Your task to perform on an android device: uninstall "Speedtest by Ookla" Image 0: 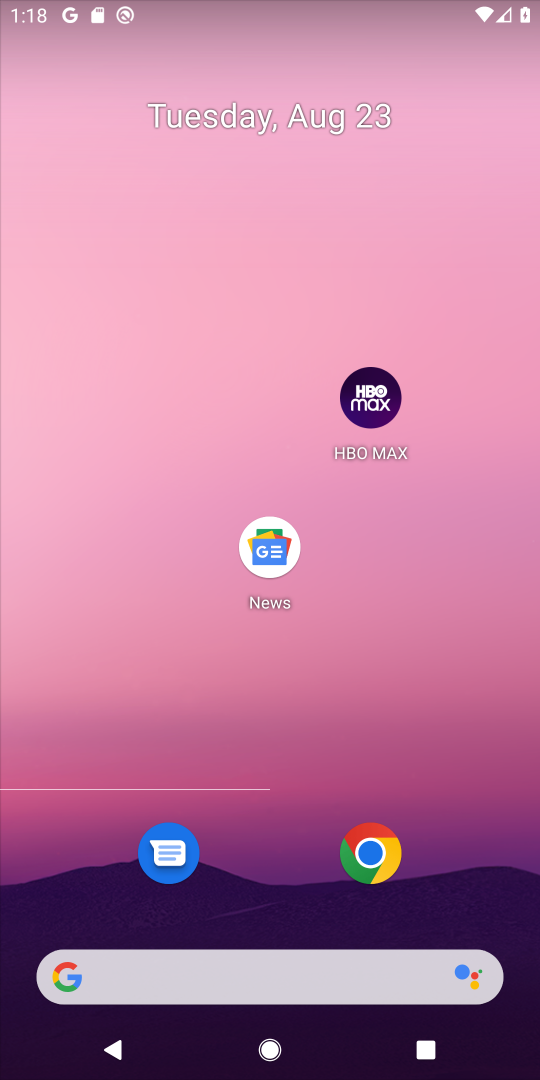
Step 0: drag from (523, 931) to (426, 140)
Your task to perform on an android device: uninstall "Speedtest by Ookla" Image 1: 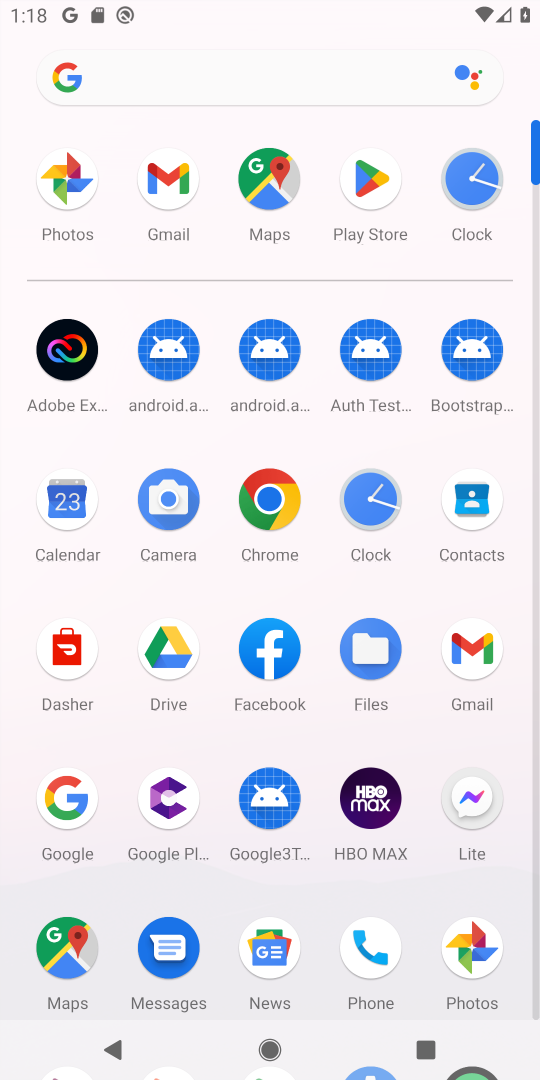
Step 1: drag from (422, 882) to (415, 392)
Your task to perform on an android device: uninstall "Speedtest by Ookla" Image 2: 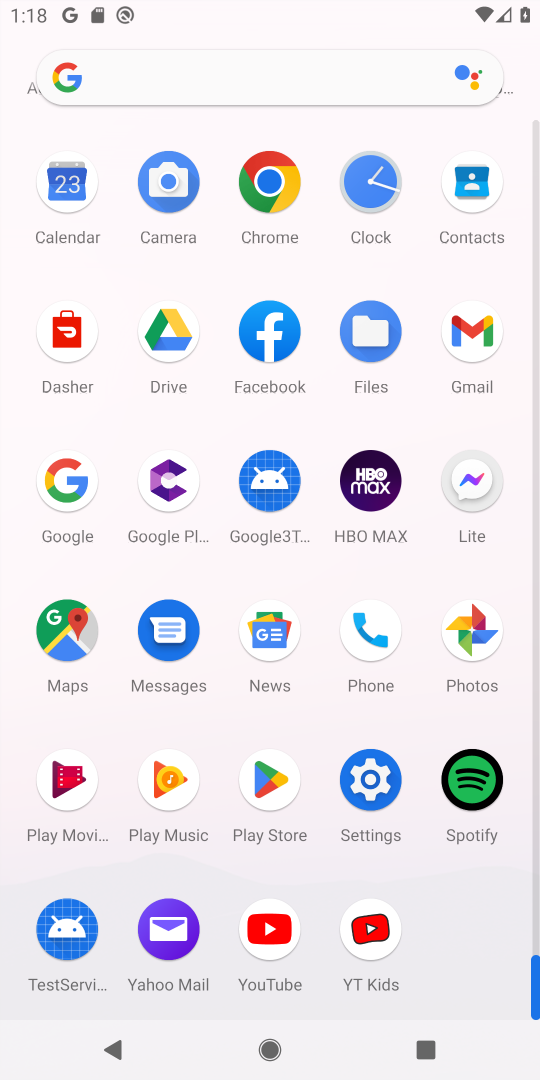
Step 2: click (269, 778)
Your task to perform on an android device: uninstall "Speedtest by Ookla" Image 3: 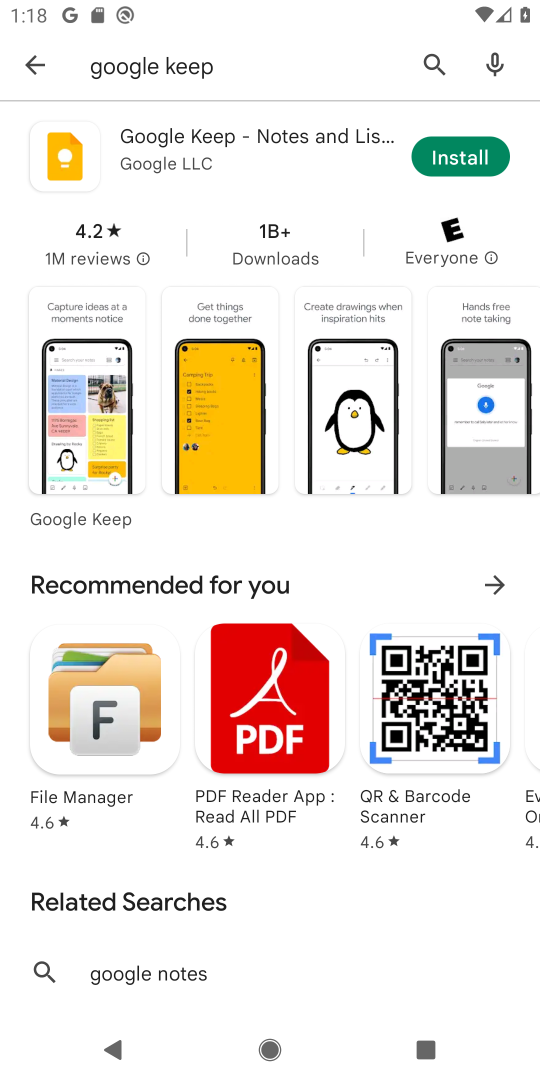
Step 3: click (430, 53)
Your task to perform on an android device: uninstall "Speedtest by Ookla" Image 4: 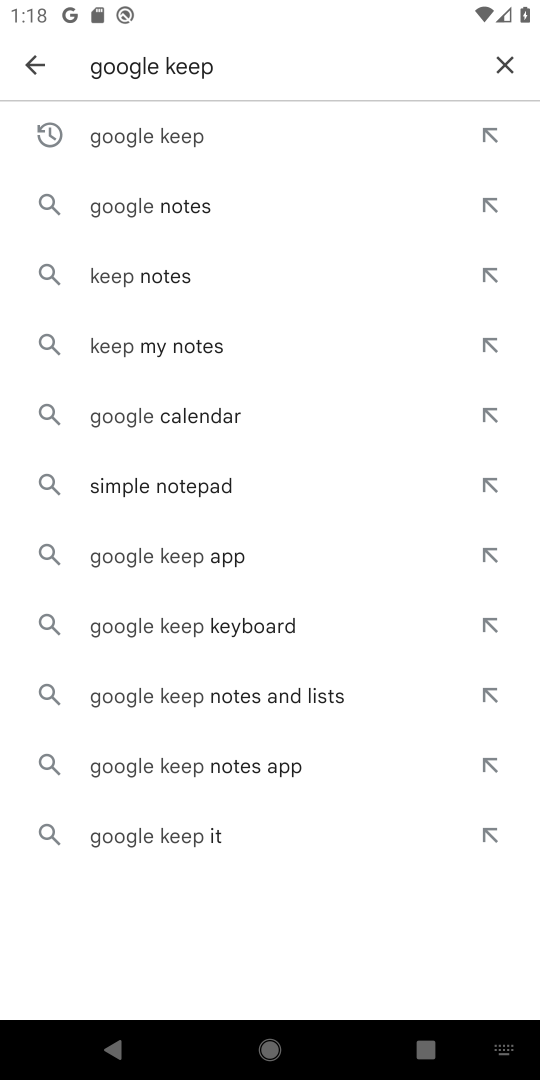
Step 4: click (502, 64)
Your task to perform on an android device: uninstall "Speedtest by Ookla" Image 5: 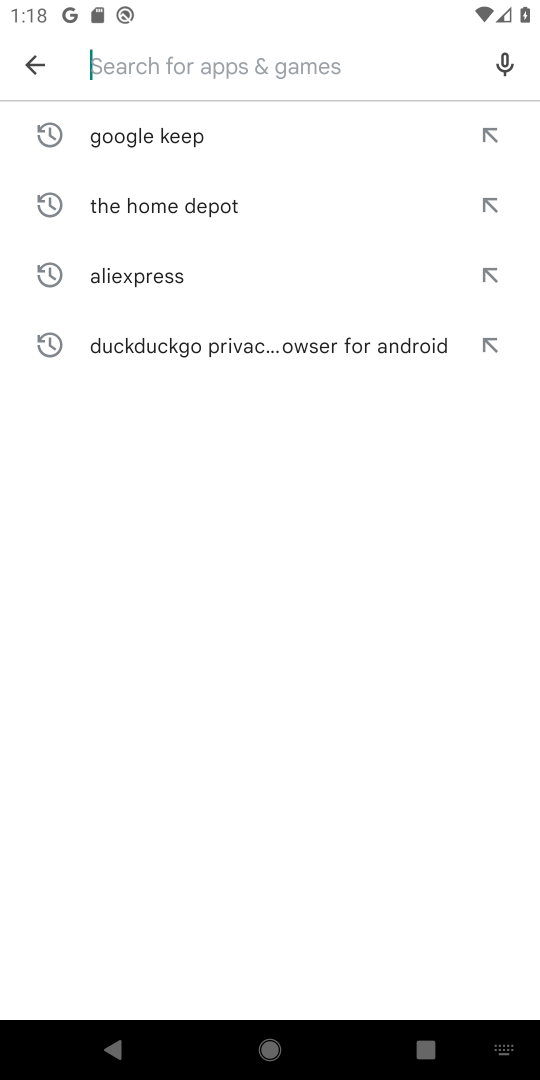
Step 5: type "Speedtest by Ookla"
Your task to perform on an android device: uninstall "Speedtest by Ookla" Image 6: 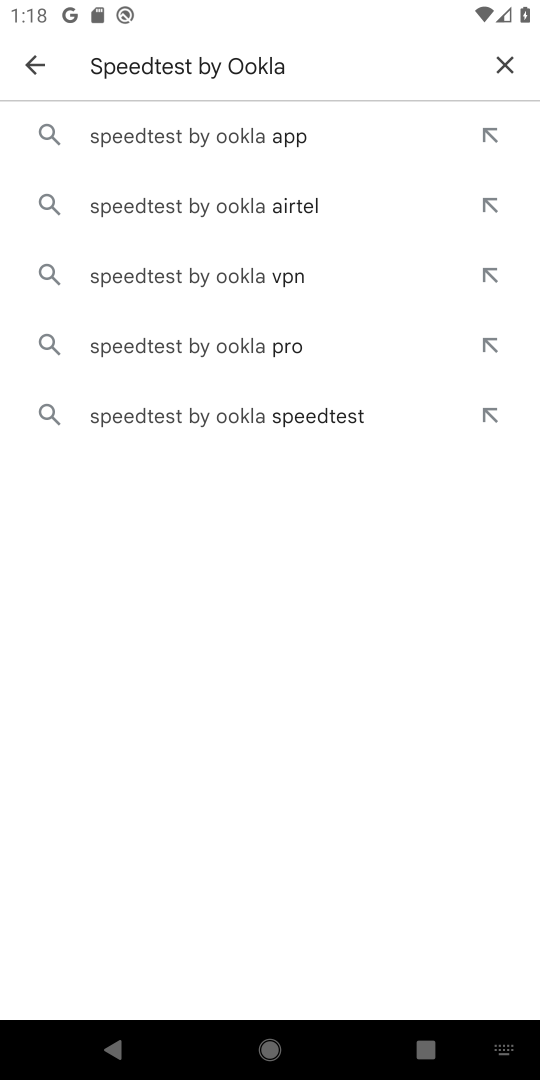
Step 6: click (177, 125)
Your task to perform on an android device: uninstall "Speedtest by Ookla" Image 7: 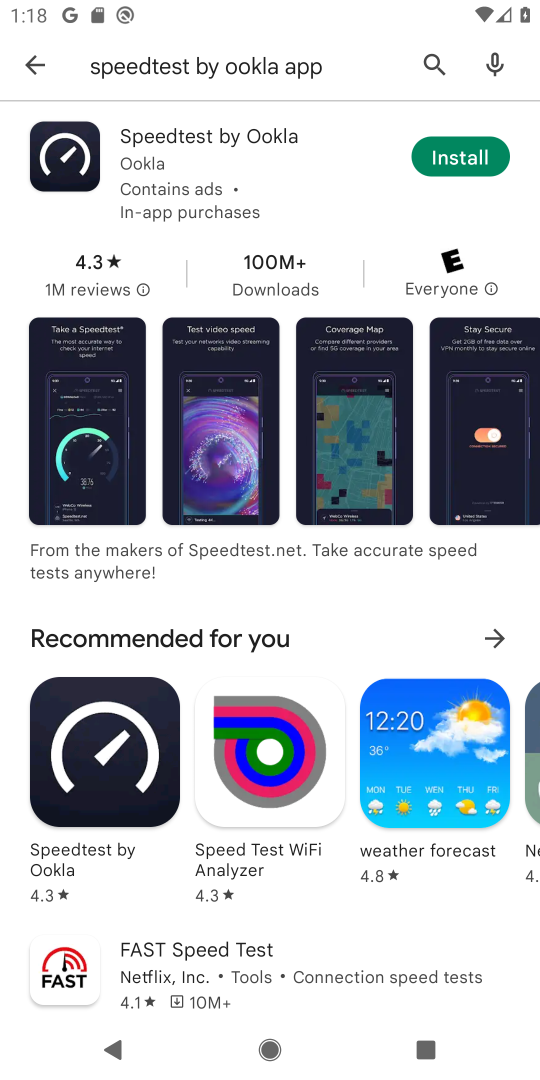
Step 7: task complete